Your task to perform on an android device: set the stopwatch Image 0: 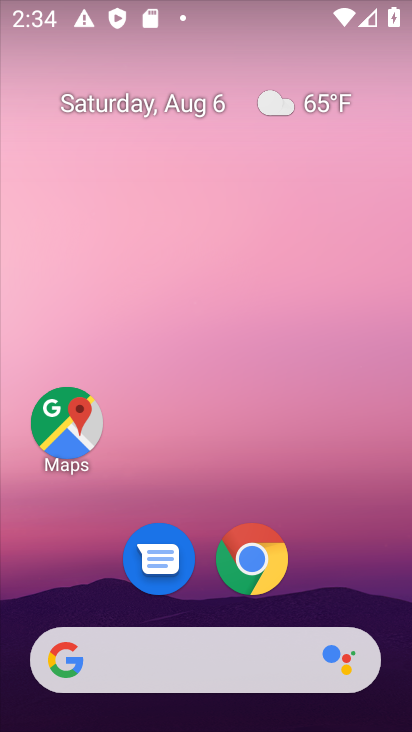
Step 0: drag from (177, 348) to (168, 152)
Your task to perform on an android device: set the stopwatch Image 1: 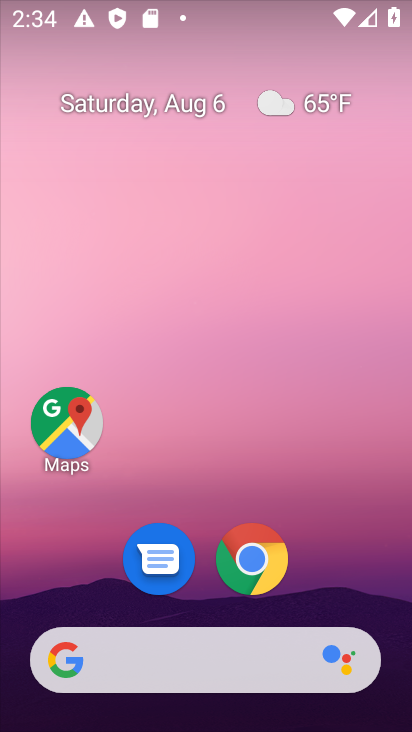
Step 1: click (213, 583)
Your task to perform on an android device: set the stopwatch Image 2: 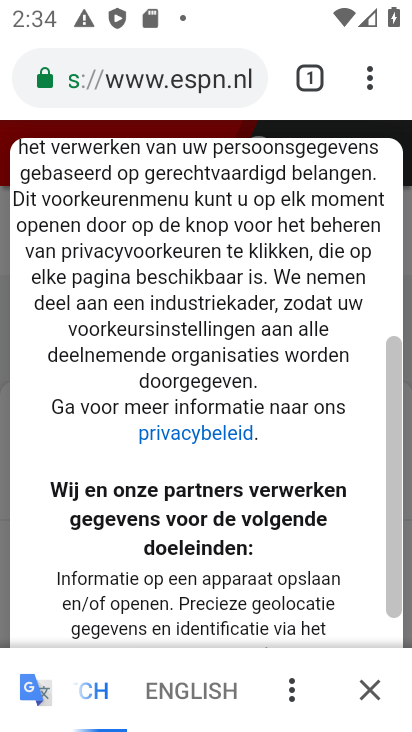
Step 2: press back button
Your task to perform on an android device: set the stopwatch Image 3: 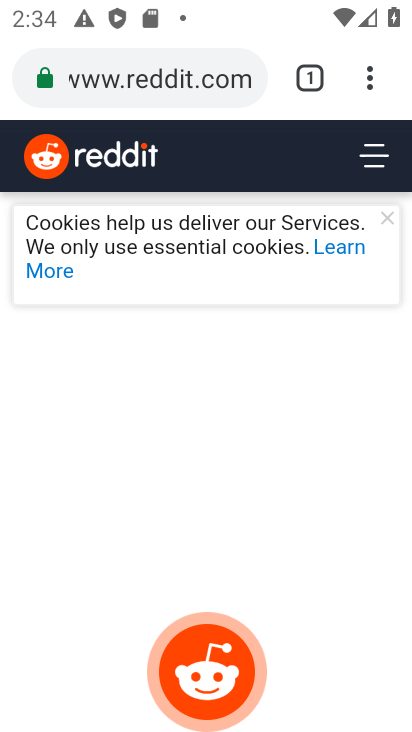
Step 3: press back button
Your task to perform on an android device: set the stopwatch Image 4: 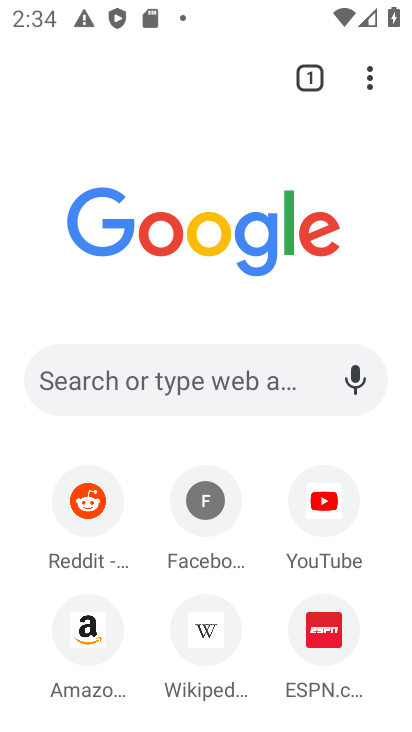
Step 4: press back button
Your task to perform on an android device: set the stopwatch Image 5: 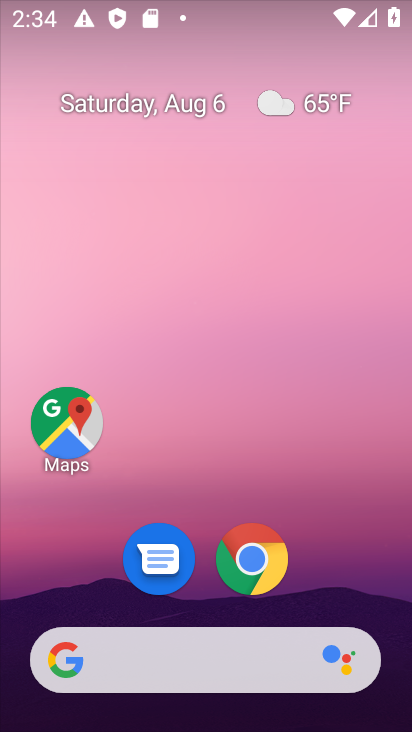
Step 5: drag from (200, 371) to (162, 76)
Your task to perform on an android device: set the stopwatch Image 6: 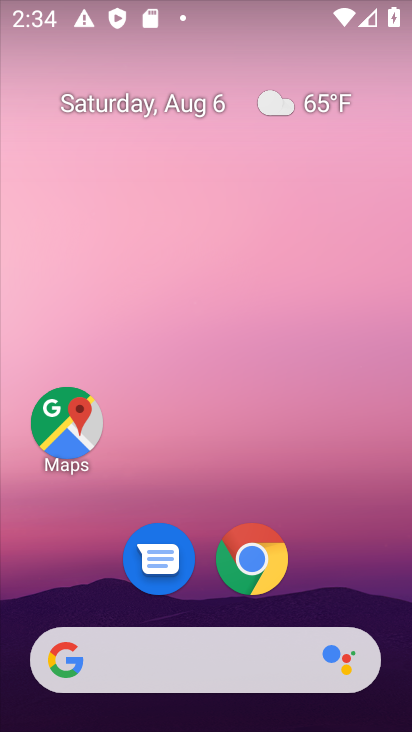
Step 6: drag from (193, 575) to (194, 244)
Your task to perform on an android device: set the stopwatch Image 7: 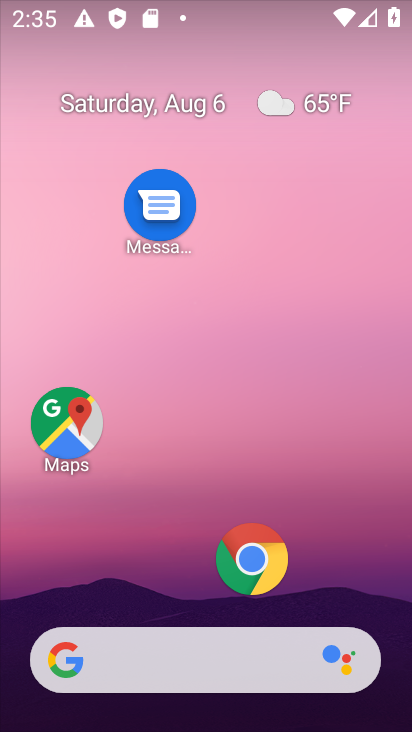
Step 7: drag from (193, 484) to (197, 18)
Your task to perform on an android device: set the stopwatch Image 8: 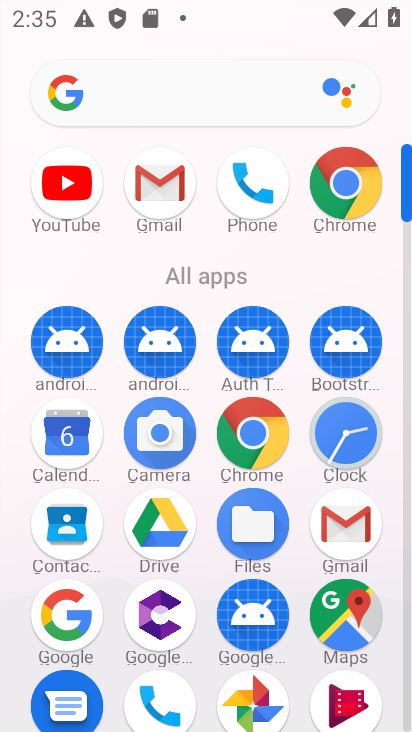
Step 8: click (339, 454)
Your task to perform on an android device: set the stopwatch Image 9: 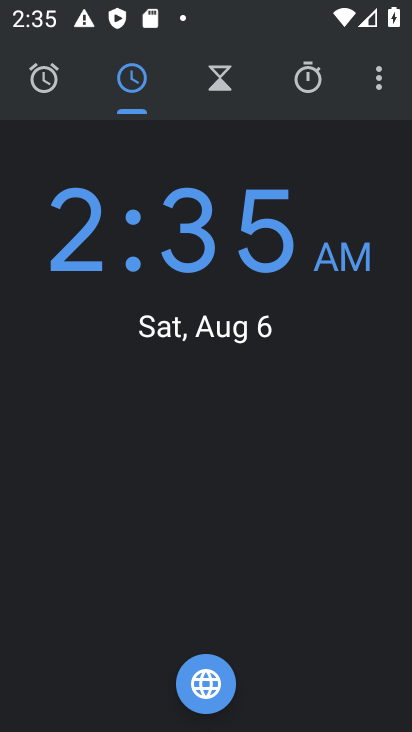
Step 9: click (303, 83)
Your task to perform on an android device: set the stopwatch Image 10: 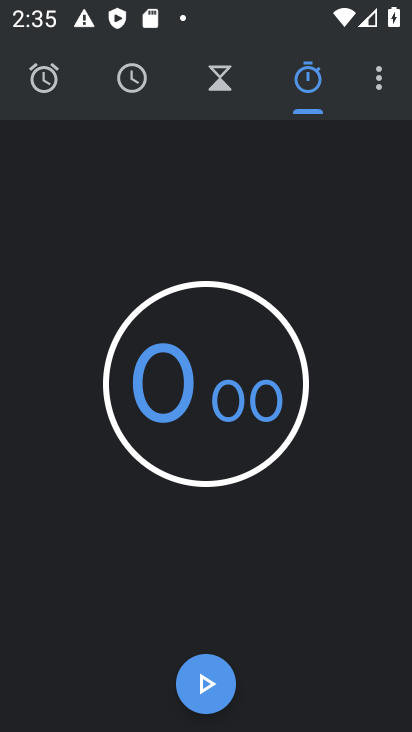
Step 10: click (221, 684)
Your task to perform on an android device: set the stopwatch Image 11: 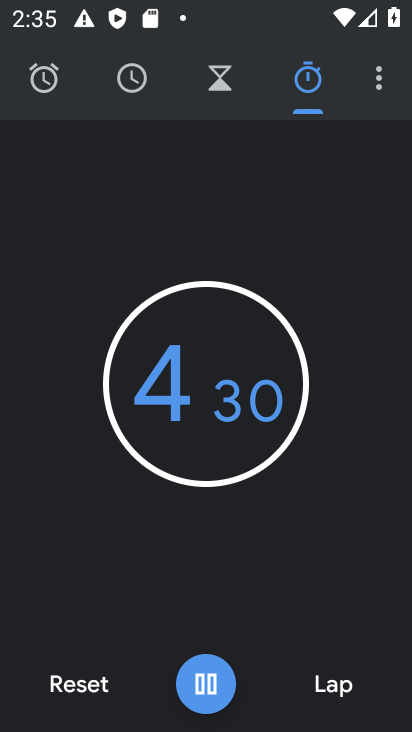
Step 11: click (221, 684)
Your task to perform on an android device: set the stopwatch Image 12: 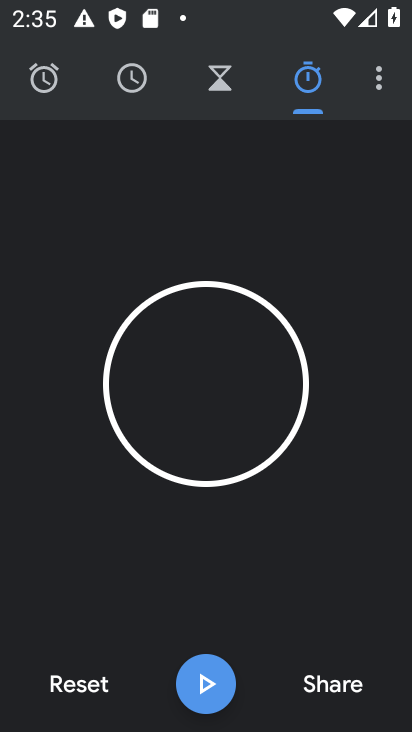
Step 12: task complete